Your task to perform on an android device: Show me productivity apps on the Play Store Image 0: 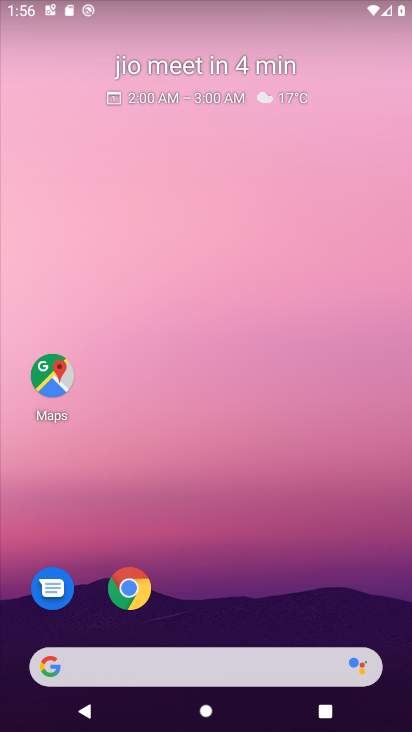
Step 0: drag from (256, 718) to (215, 7)
Your task to perform on an android device: Show me productivity apps on the Play Store Image 1: 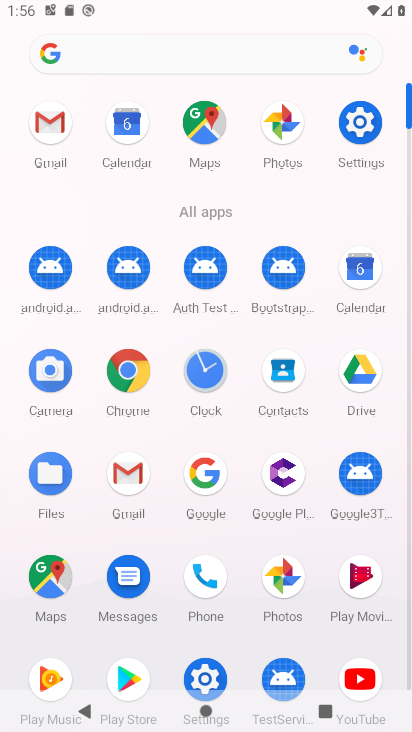
Step 1: click (120, 673)
Your task to perform on an android device: Show me productivity apps on the Play Store Image 2: 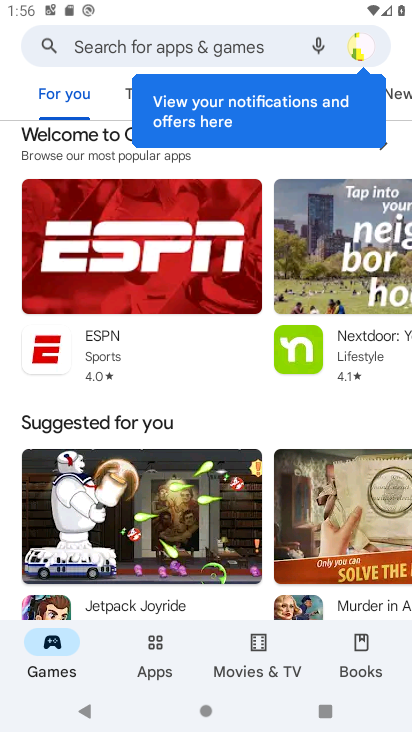
Step 2: click (144, 649)
Your task to perform on an android device: Show me productivity apps on the Play Store Image 3: 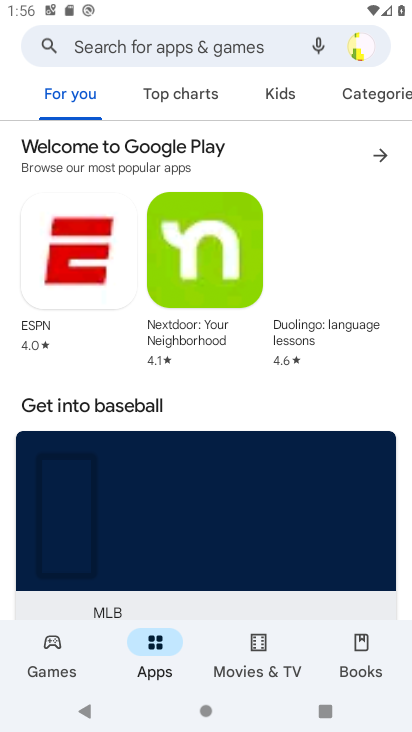
Step 3: drag from (371, 91) to (15, 135)
Your task to perform on an android device: Show me productivity apps on the Play Store Image 4: 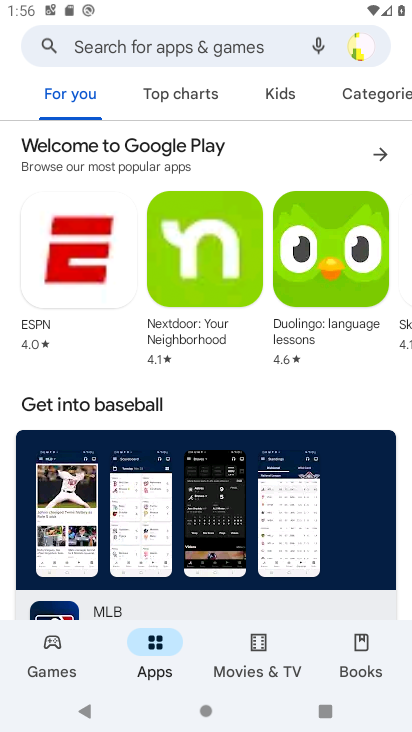
Step 4: click (340, 87)
Your task to perform on an android device: Show me productivity apps on the Play Store Image 5: 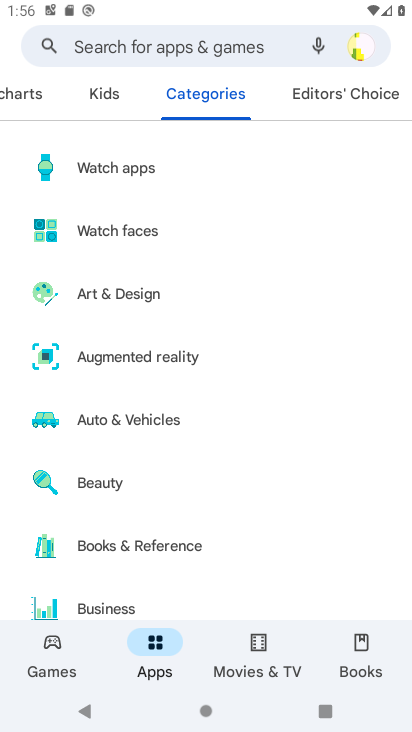
Step 5: drag from (237, 609) to (221, 4)
Your task to perform on an android device: Show me productivity apps on the Play Store Image 6: 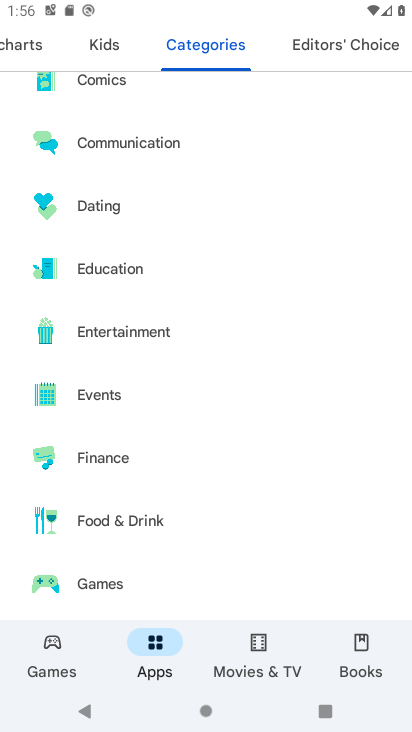
Step 6: drag from (290, 560) to (358, 27)
Your task to perform on an android device: Show me productivity apps on the Play Store Image 7: 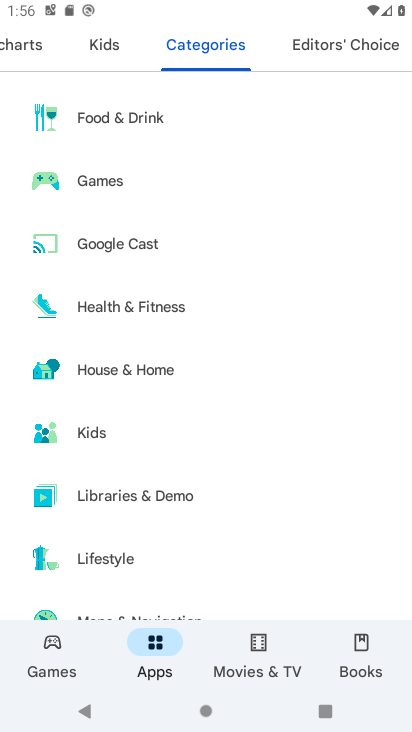
Step 7: drag from (294, 461) to (343, 91)
Your task to perform on an android device: Show me productivity apps on the Play Store Image 8: 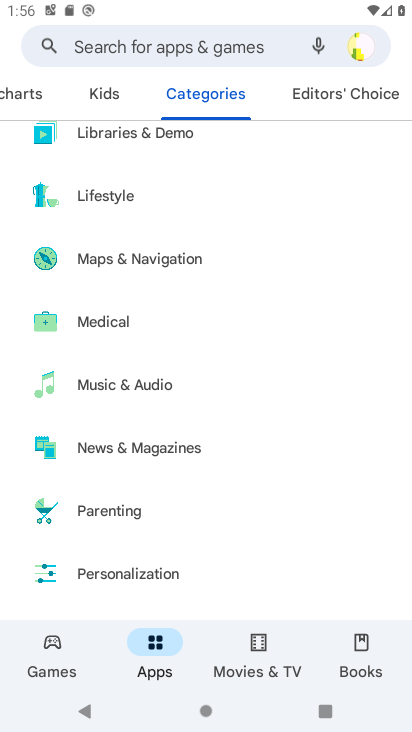
Step 8: drag from (303, 505) to (383, 29)
Your task to perform on an android device: Show me productivity apps on the Play Store Image 9: 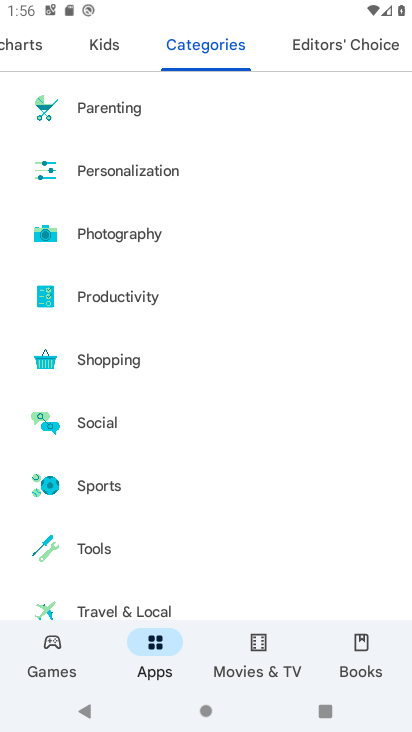
Step 9: click (179, 303)
Your task to perform on an android device: Show me productivity apps on the Play Store Image 10: 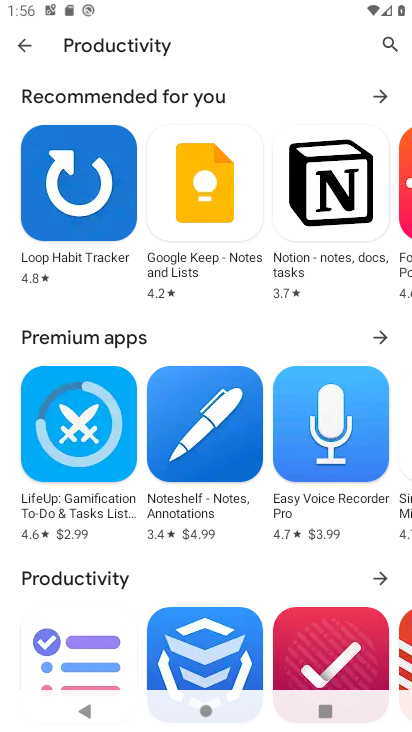
Step 10: task complete